Your task to perform on an android device: Open Maps and search for coffee Image 0: 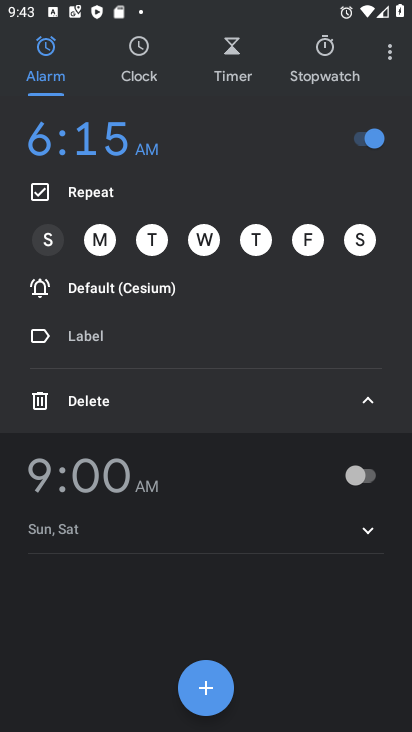
Step 0: press home button
Your task to perform on an android device: Open Maps and search for coffee Image 1: 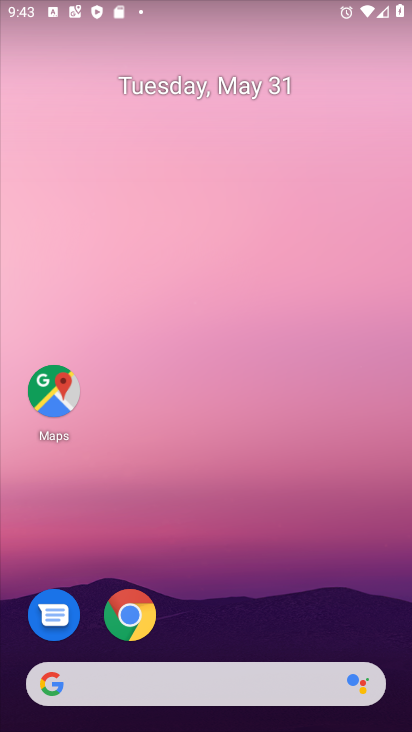
Step 1: click (56, 389)
Your task to perform on an android device: Open Maps and search for coffee Image 2: 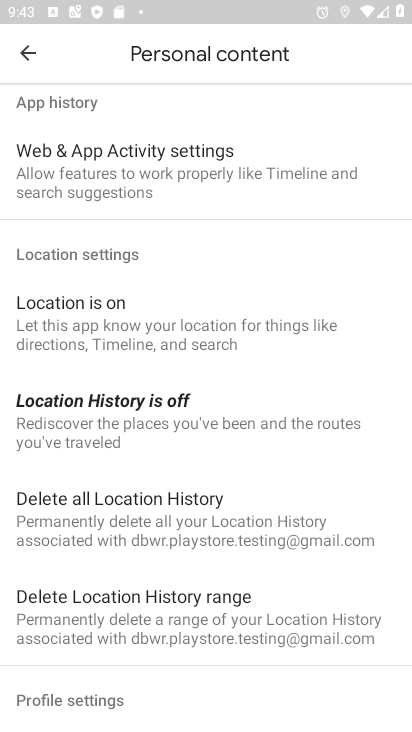
Step 2: press back button
Your task to perform on an android device: Open Maps and search for coffee Image 3: 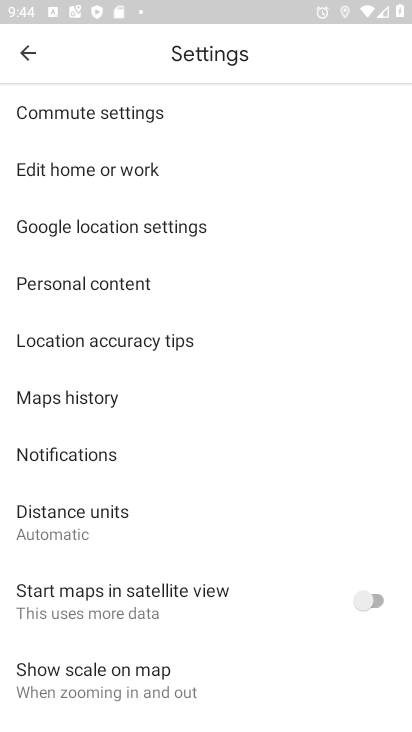
Step 3: press back button
Your task to perform on an android device: Open Maps and search for coffee Image 4: 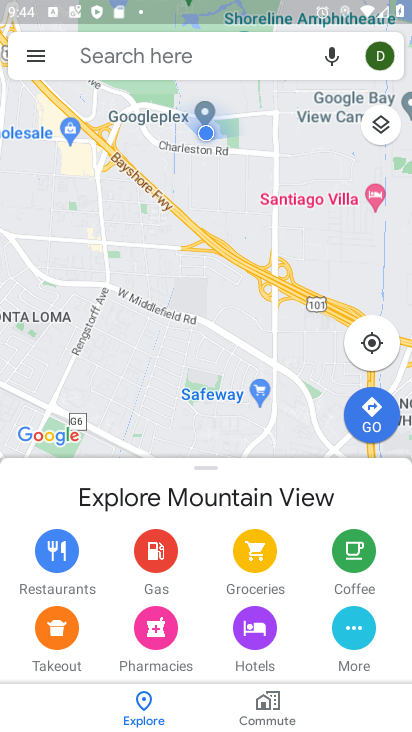
Step 4: click (134, 49)
Your task to perform on an android device: Open Maps and search for coffee Image 5: 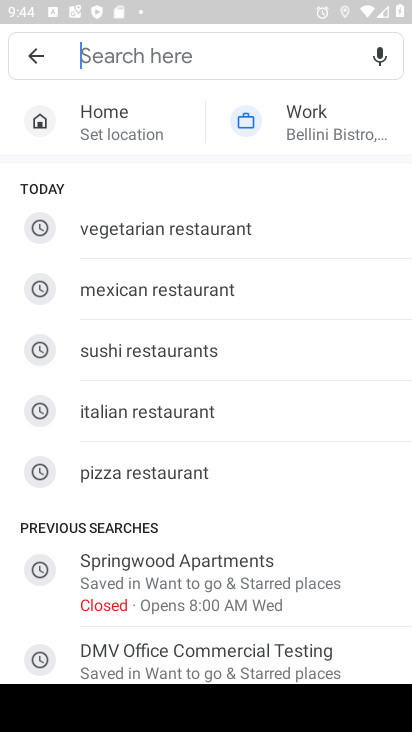
Step 5: type "coffee"
Your task to perform on an android device: Open Maps and search for coffee Image 6: 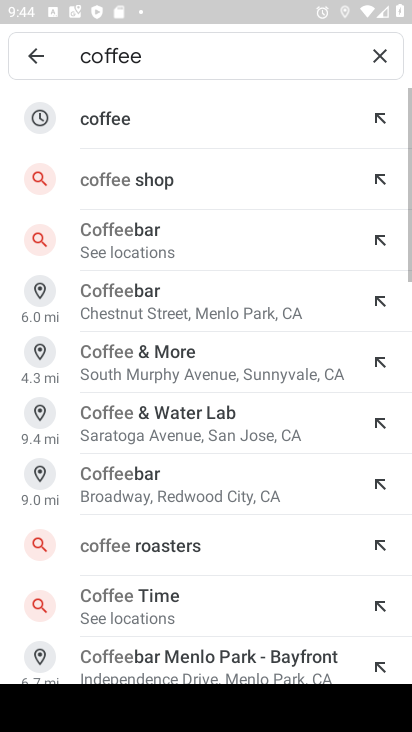
Step 6: click (123, 115)
Your task to perform on an android device: Open Maps and search for coffee Image 7: 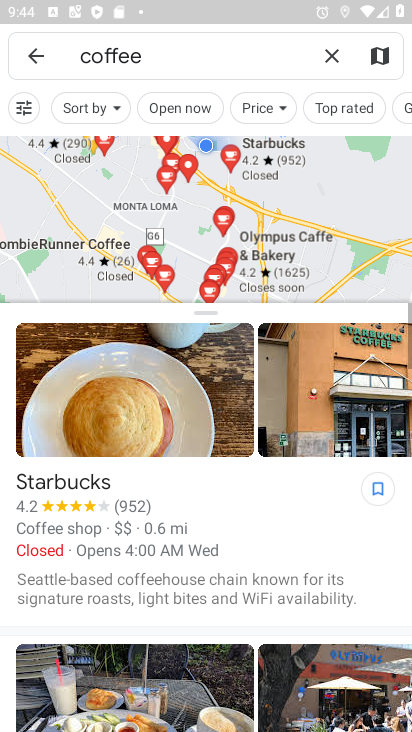
Step 7: task complete